Your task to perform on an android device: turn off picture-in-picture Image 0: 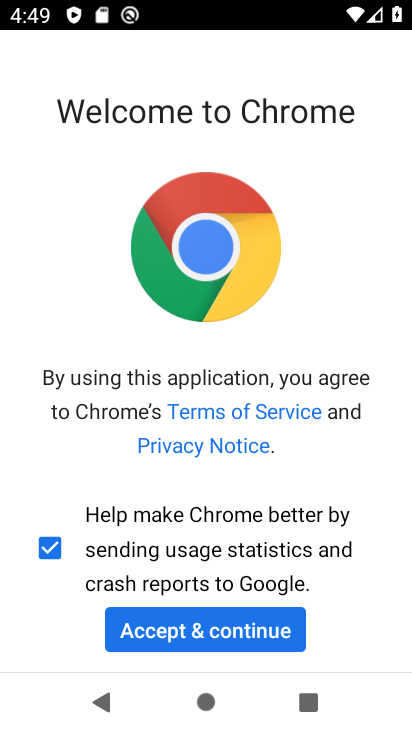
Step 0: press home button
Your task to perform on an android device: turn off picture-in-picture Image 1: 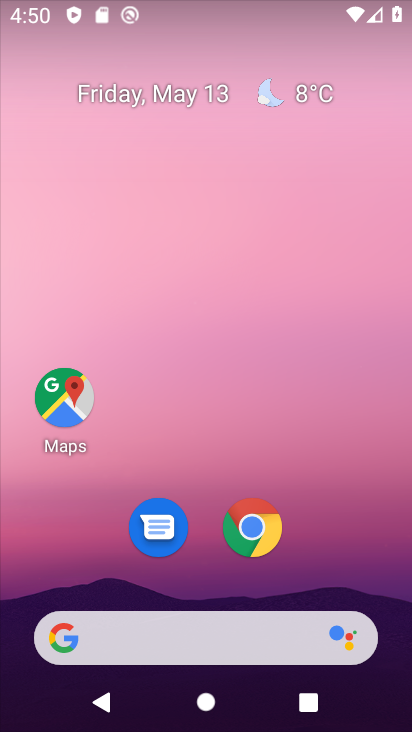
Step 1: click (248, 534)
Your task to perform on an android device: turn off picture-in-picture Image 2: 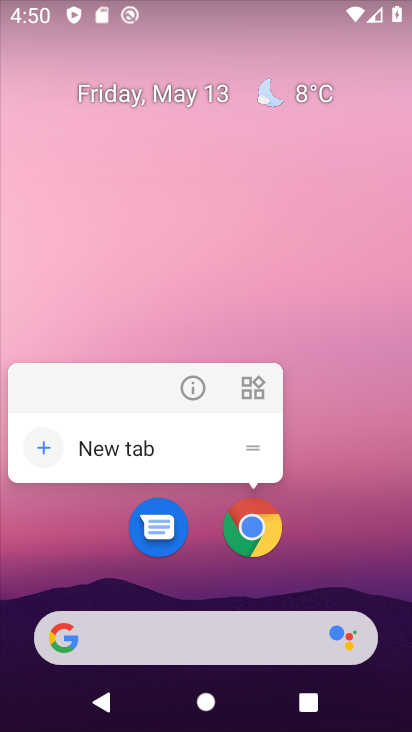
Step 2: click (199, 390)
Your task to perform on an android device: turn off picture-in-picture Image 3: 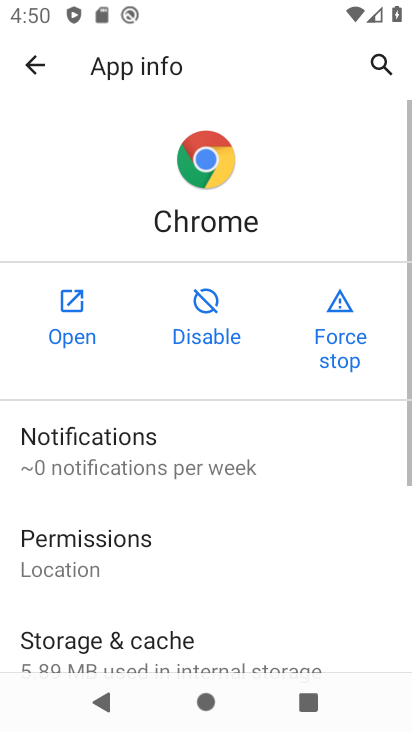
Step 3: drag from (168, 595) to (193, 240)
Your task to perform on an android device: turn off picture-in-picture Image 4: 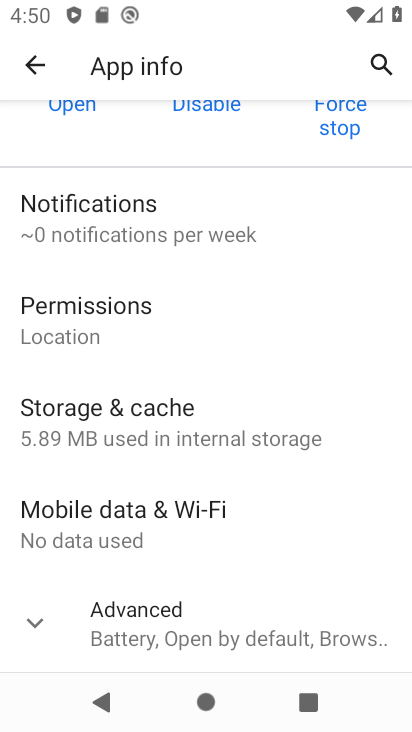
Step 4: click (163, 638)
Your task to perform on an android device: turn off picture-in-picture Image 5: 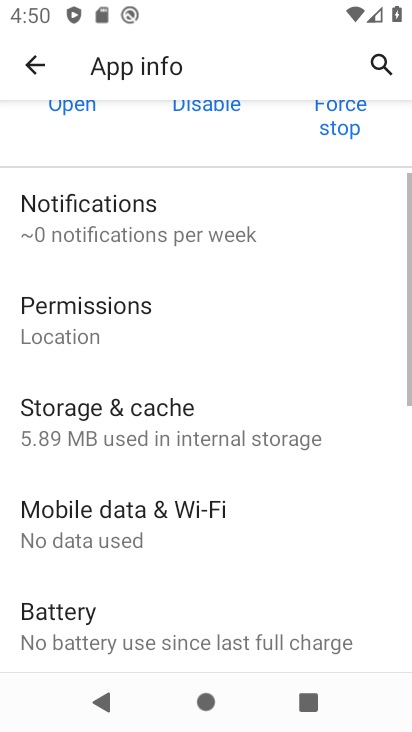
Step 5: drag from (208, 650) to (252, 250)
Your task to perform on an android device: turn off picture-in-picture Image 6: 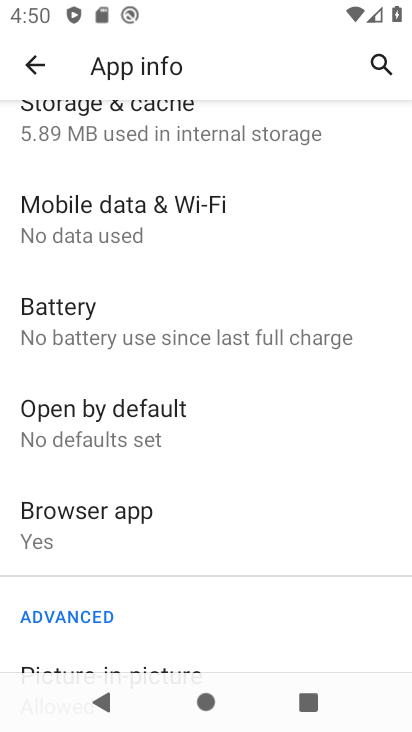
Step 6: drag from (172, 582) to (211, 249)
Your task to perform on an android device: turn off picture-in-picture Image 7: 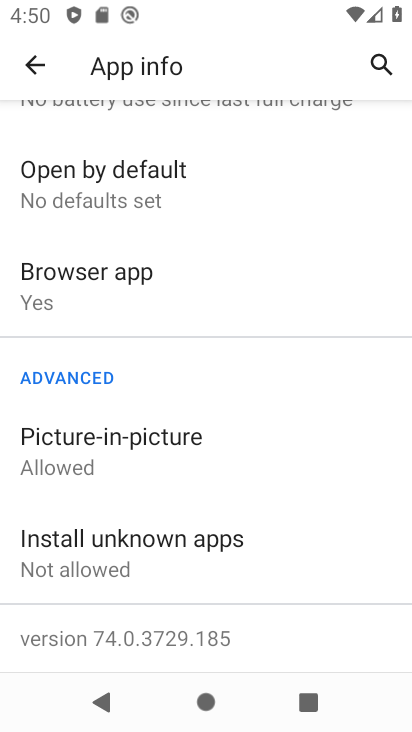
Step 7: click (111, 457)
Your task to perform on an android device: turn off picture-in-picture Image 8: 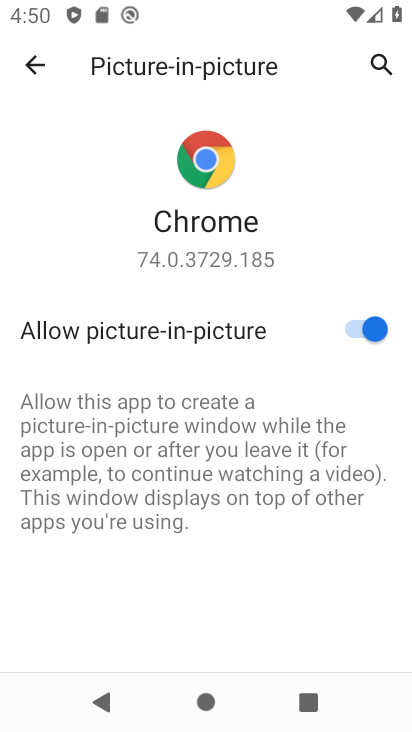
Step 8: click (354, 319)
Your task to perform on an android device: turn off picture-in-picture Image 9: 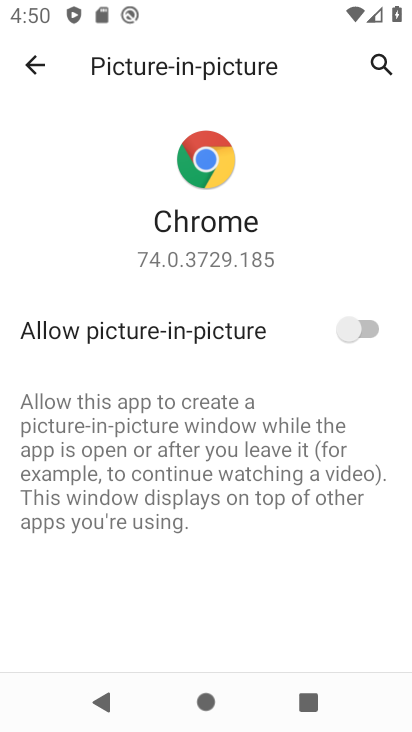
Step 9: task complete